Your task to perform on an android device: toggle show notifications on the lock screen Image 0: 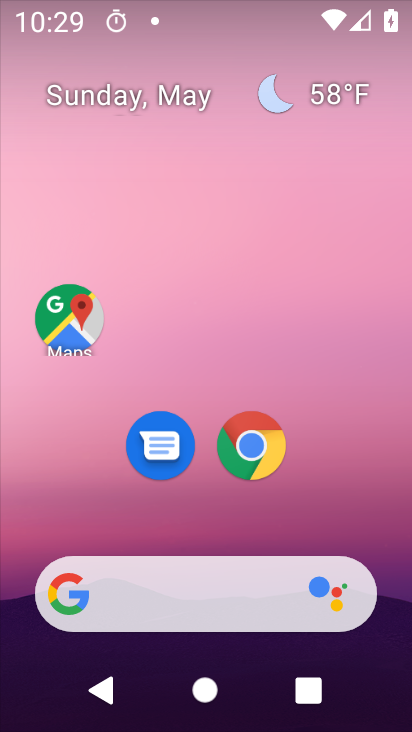
Step 0: drag from (347, 488) to (253, 4)
Your task to perform on an android device: toggle show notifications on the lock screen Image 1: 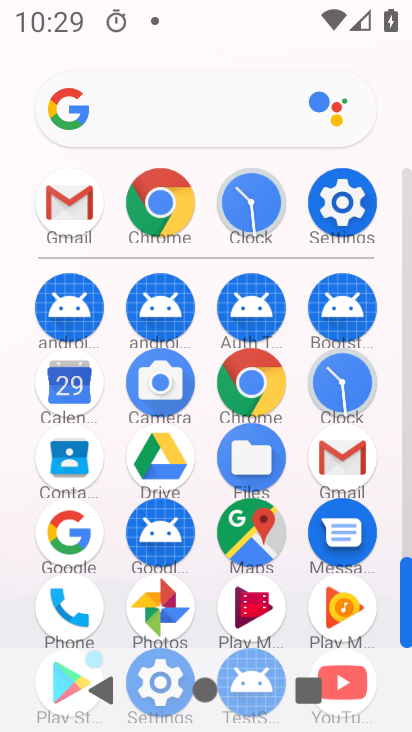
Step 1: drag from (1, 483) to (15, 236)
Your task to perform on an android device: toggle show notifications on the lock screen Image 2: 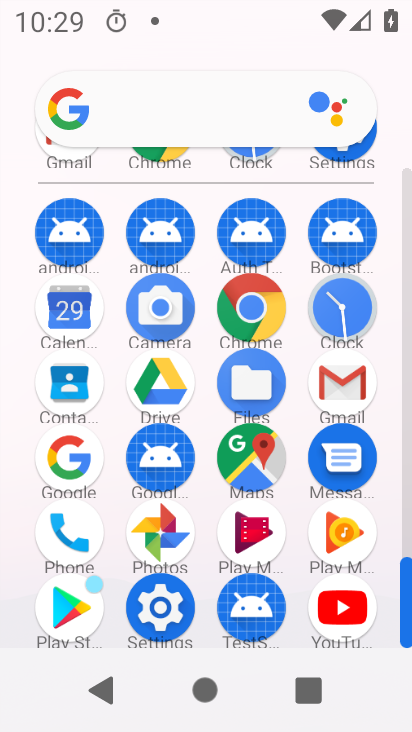
Step 2: click (161, 606)
Your task to perform on an android device: toggle show notifications on the lock screen Image 3: 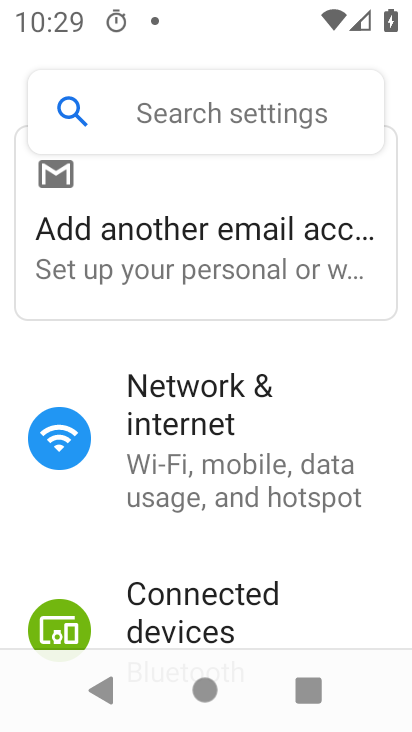
Step 3: drag from (286, 595) to (309, 188)
Your task to perform on an android device: toggle show notifications on the lock screen Image 4: 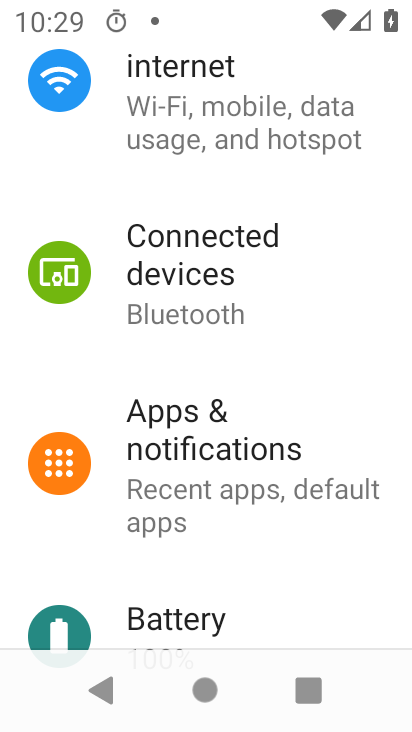
Step 4: click (222, 432)
Your task to perform on an android device: toggle show notifications on the lock screen Image 5: 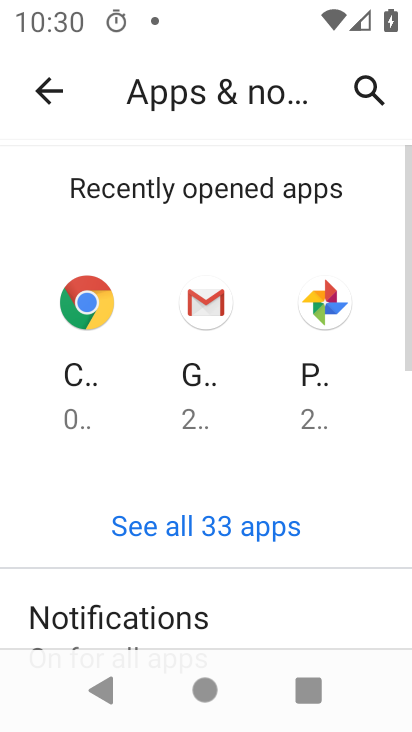
Step 5: drag from (309, 597) to (296, 197)
Your task to perform on an android device: toggle show notifications on the lock screen Image 6: 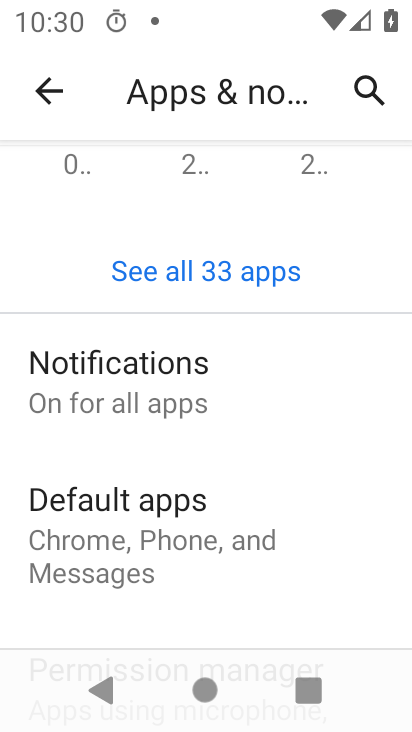
Step 6: click (198, 376)
Your task to perform on an android device: toggle show notifications on the lock screen Image 7: 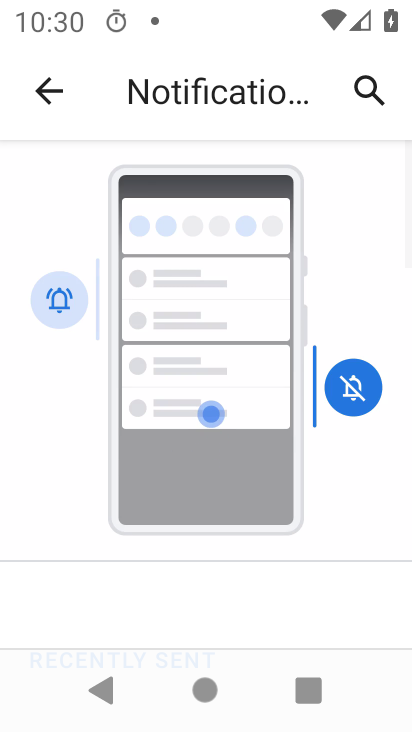
Step 7: drag from (186, 481) to (160, 151)
Your task to perform on an android device: toggle show notifications on the lock screen Image 8: 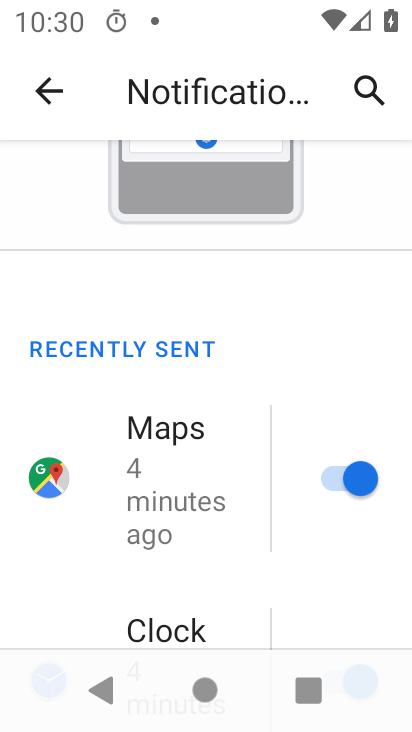
Step 8: drag from (166, 470) to (186, 165)
Your task to perform on an android device: toggle show notifications on the lock screen Image 9: 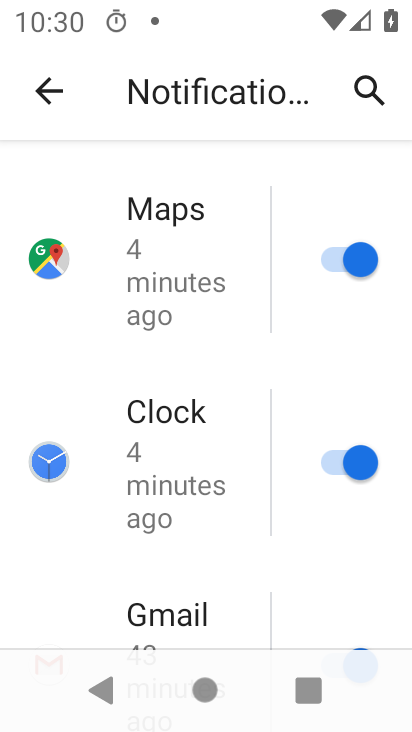
Step 9: drag from (191, 529) to (185, 145)
Your task to perform on an android device: toggle show notifications on the lock screen Image 10: 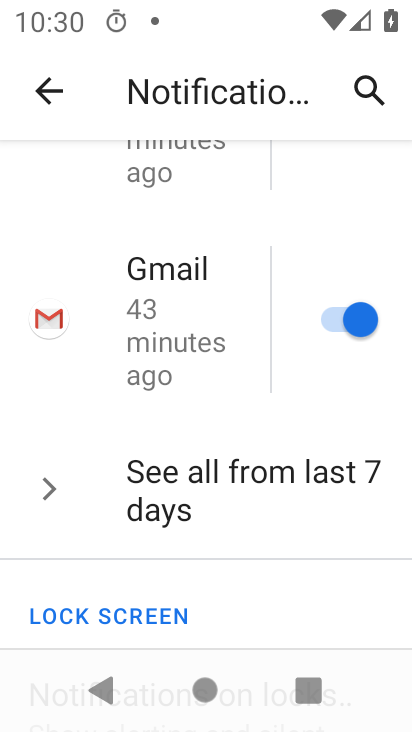
Step 10: drag from (197, 580) to (227, 156)
Your task to perform on an android device: toggle show notifications on the lock screen Image 11: 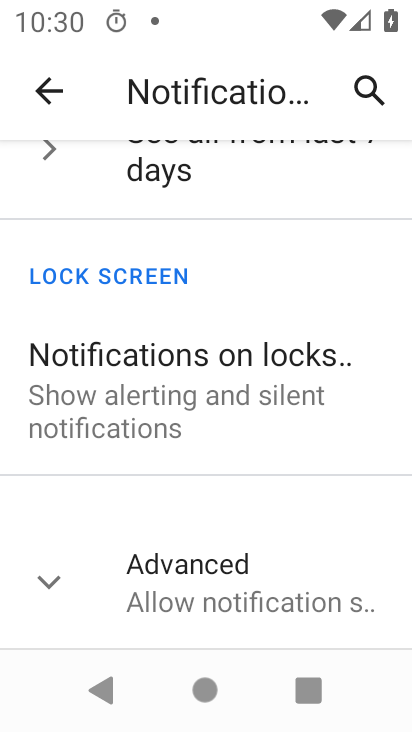
Step 11: click (157, 388)
Your task to perform on an android device: toggle show notifications on the lock screen Image 12: 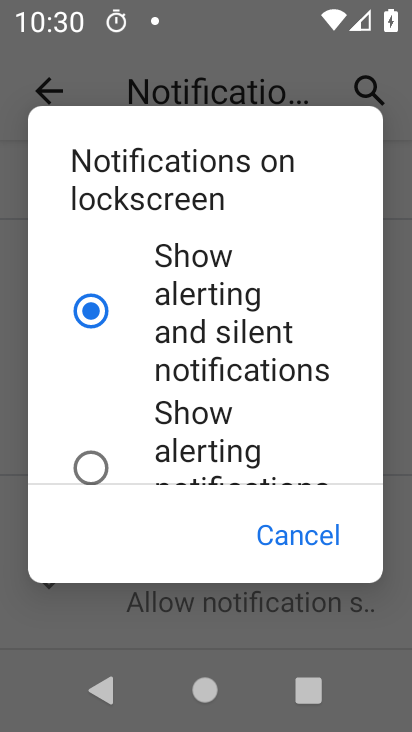
Step 12: drag from (273, 401) to (270, 162)
Your task to perform on an android device: toggle show notifications on the lock screen Image 13: 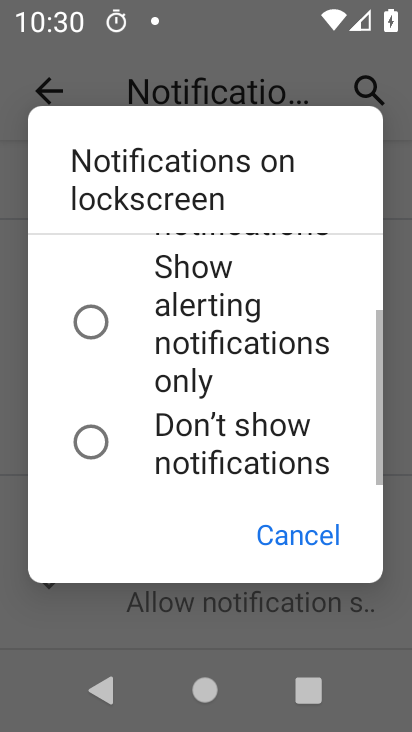
Step 13: drag from (230, 413) to (240, 210)
Your task to perform on an android device: toggle show notifications on the lock screen Image 14: 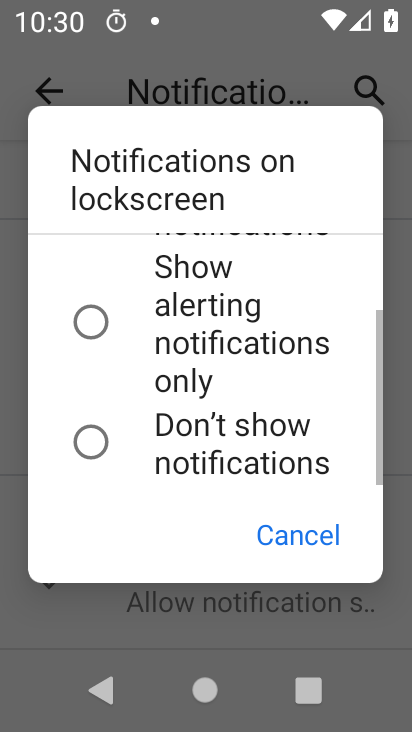
Step 14: drag from (245, 294) to (247, 444)
Your task to perform on an android device: toggle show notifications on the lock screen Image 15: 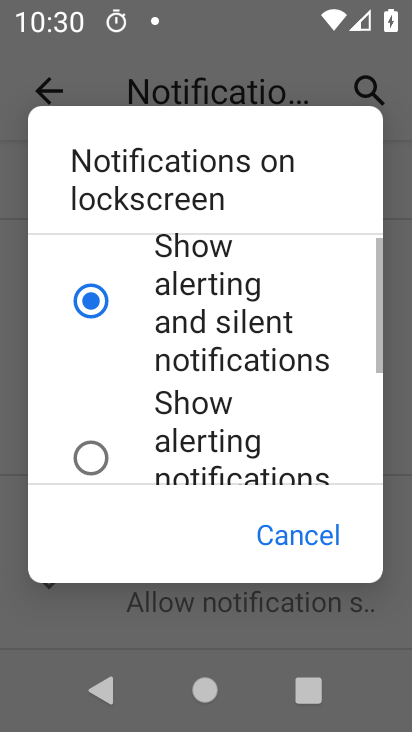
Step 15: click (243, 530)
Your task to perform on an android device: toggle show notifications on the lock screen Image 16: 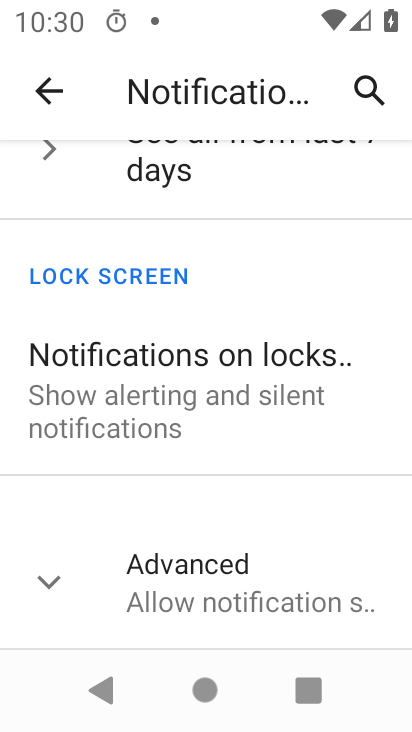
Step 16: click (133, 380)
Your task to perform on an android device: toggle show notifications on the lock screen Image 17: 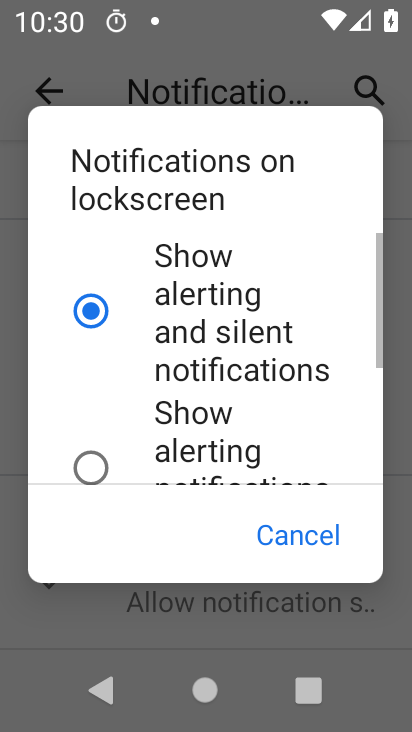
Step 17: click (159, 329)
Your task to perform on an android device: toggle show notifications on the lock screen Image 18: 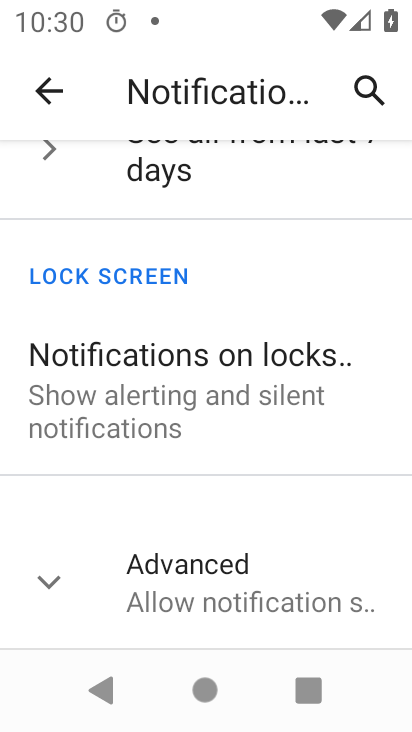
Step 18: click (137, 564)
Your task to perform on an android device: toggle show notifications on the lock screen Image 19: 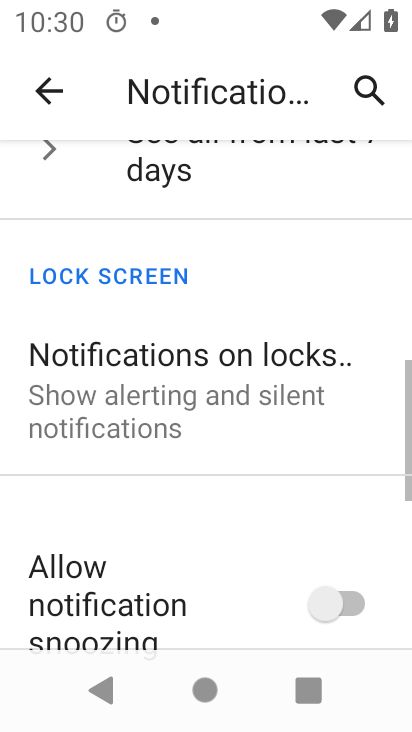
Step 19: task complete